Your task to perform on an android device: Show me the alarms in the clock app Image 0: 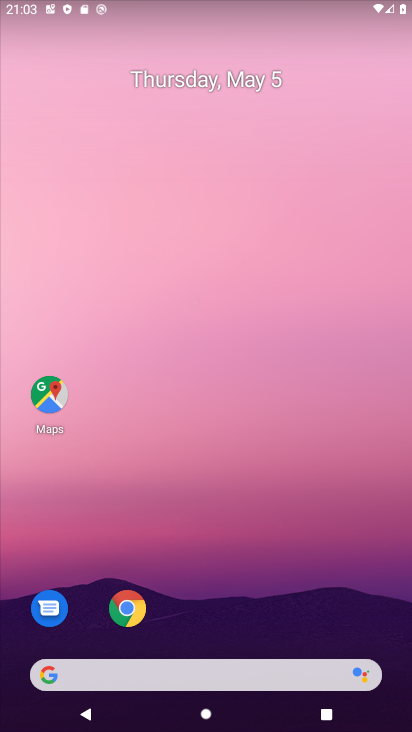
Step 0: drag from (252, 668) to (250, 17)
Your task to perform on an android device: Show me the alarms in the clock app Image 1: 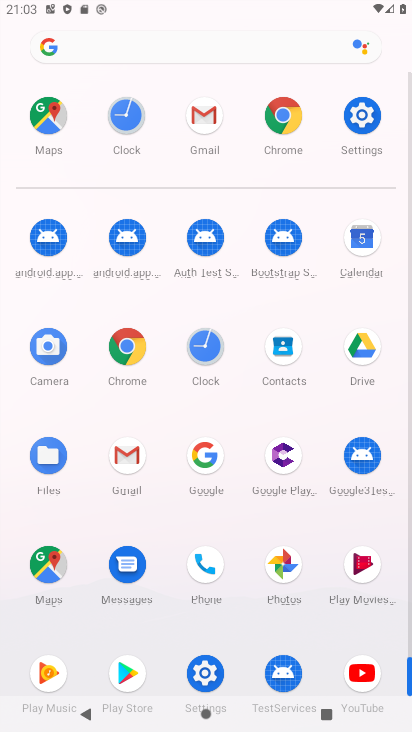
Step 1: click (205, 353)
Your task to perform on an android device: Show me the alarms in the clock app Image 2: 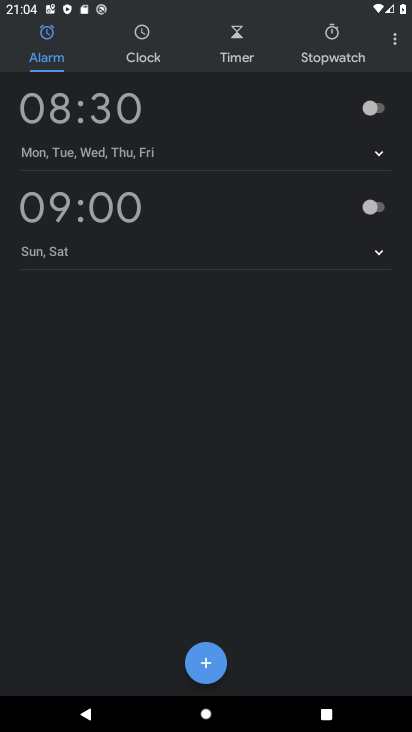
Step 2: task complete